Your task to perform on an android device: set an alarm Image 0: 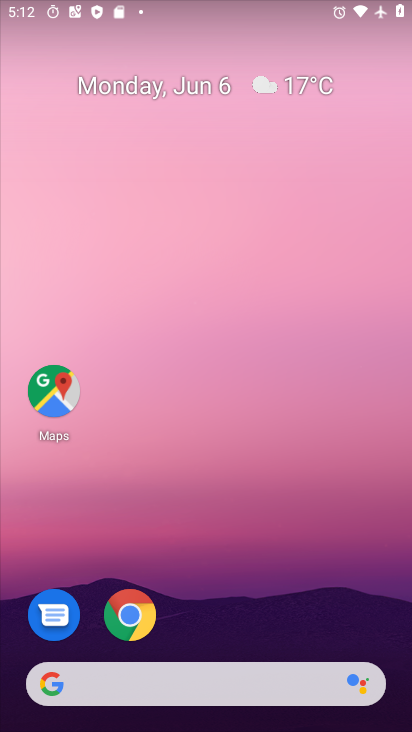
Step 0: drag from (284, 573) to (201, 76)
Your task to perform on an android device: set an alarm Image 1: 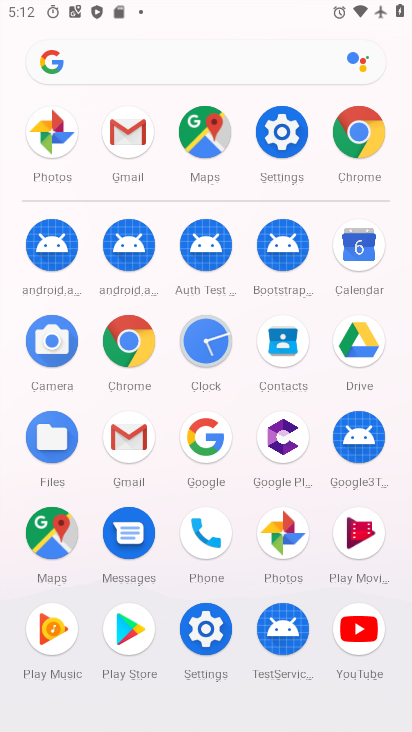
Step 1: click (205, 339)
Your task to perform on an android device: set an alarm Image 2: 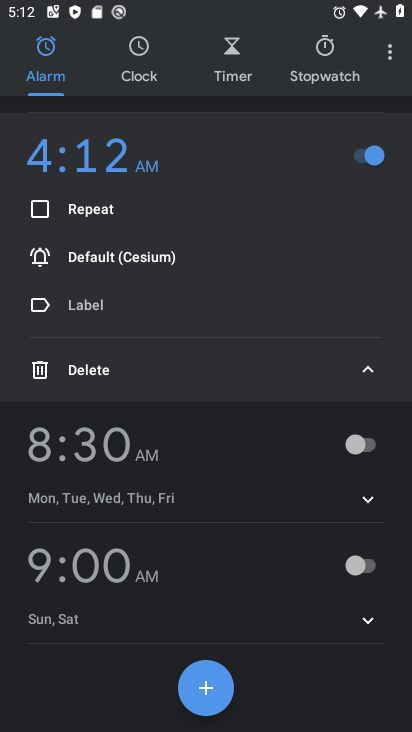
Step 2: click (209, 689)
Your task to perform on an android device: set an alarm Image 3: 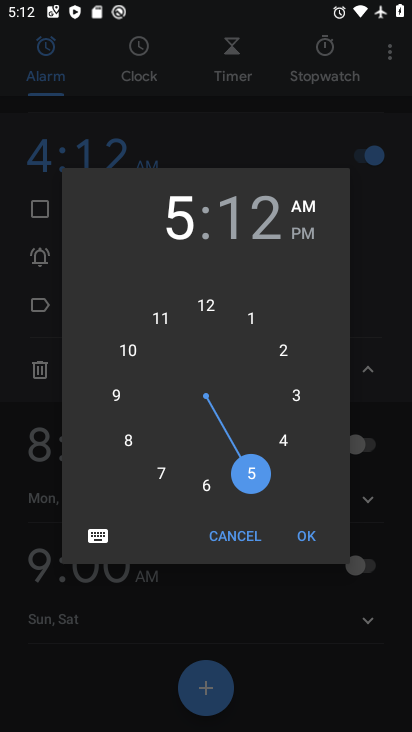
Step 3: click (302, 537)
Your task to perform on an android device: set an alarm Image 4: 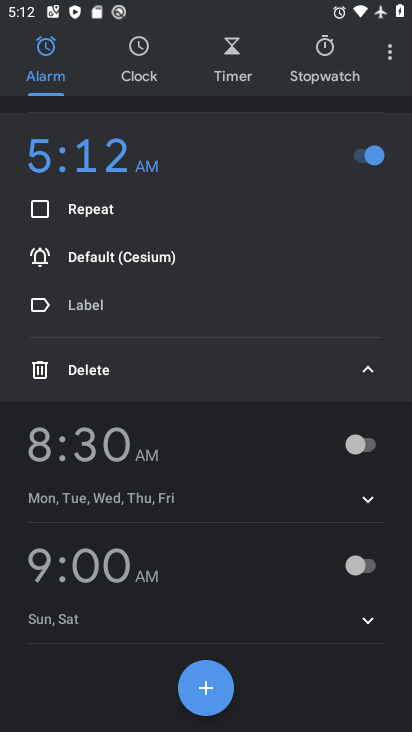
Step 4: task complete